Your task to perform on an android device: Where can I buy a nice beach umbrella? Image 0: 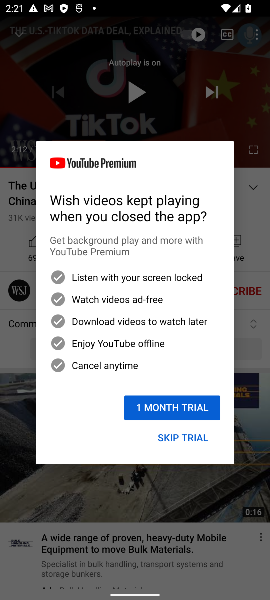
Step 0: press home button
Your task to perform on an android device: Where can I buy a nice beach umbrella? Image 1: 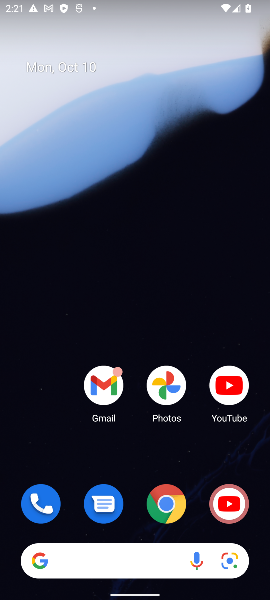
Step 1: drag from (184, 480) to (186, 137)
Your task to perform on an android device: Where can I buy a nice beach umbrella? Image 2: 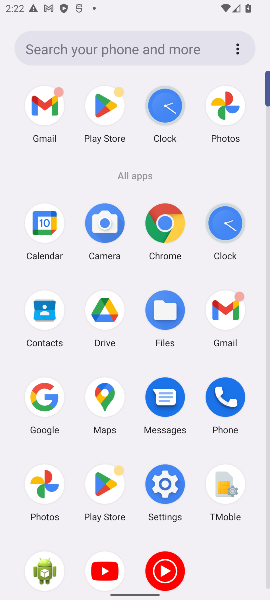
Step 2: click (168, 223)
Your task to perform on an android device: Where can I buy a nice beach umbrella? Image 3: 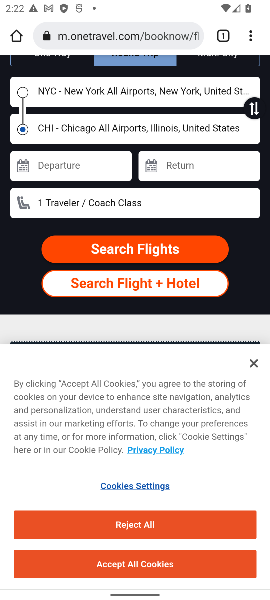
Step 3: click (136, 33)
Your task to perform on an android device: Where can I buy a nice beach umbrella? Image 4: 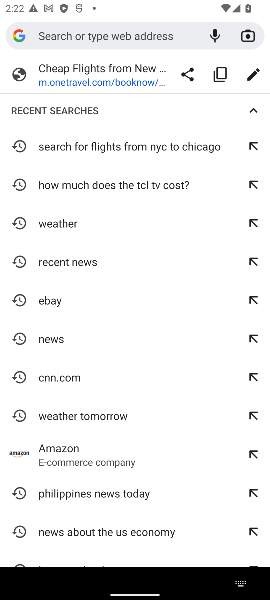
Step 4: type "Where can I buy a nice beach umbrella?"
Your task to perform on an android device: Where can I buy a nice beach umbrella? Image 5: 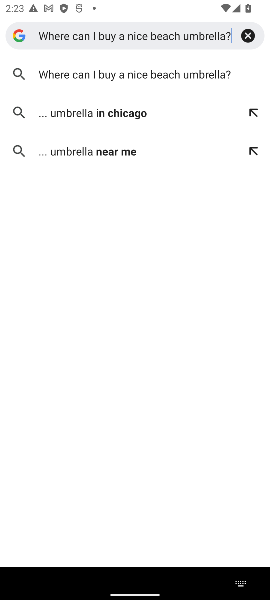
Step 5: press enter
Your task to perform on an android device: Where can I buy a nice beach umbrella? Image 6: 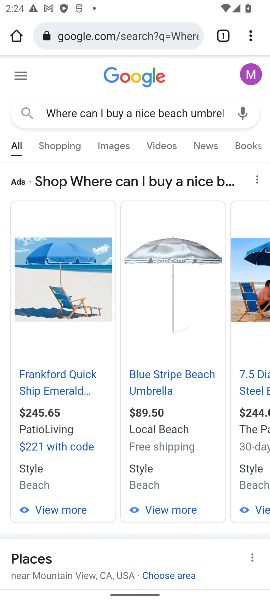
Step 6: task complete